Your task to perform on an android device: remove spam from my inbox in the gmail app Image 0: 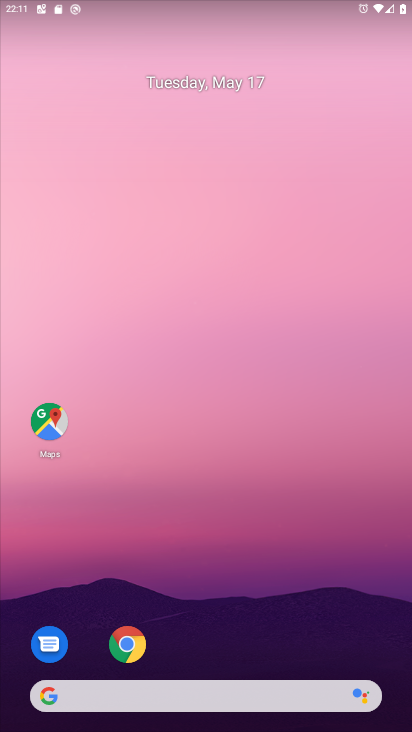
Step 0: click (52, 415)
Your task to perform on an android device: remove spam from my inbox in the gmail app Image 1: 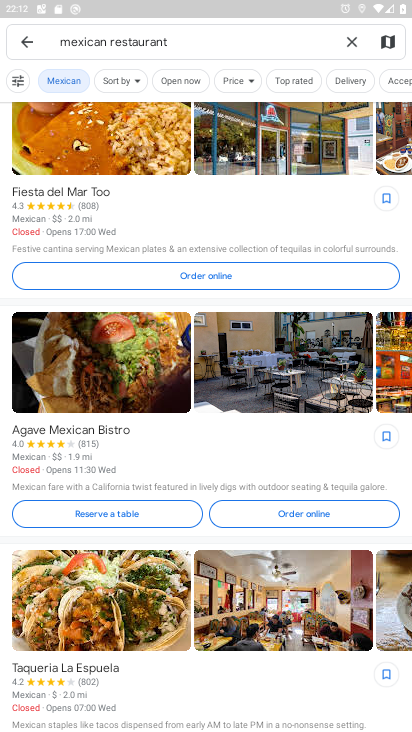
Step 1: press home button
Your task to perform on an android device: remove spam from my inbox in the gmail app Image 2: 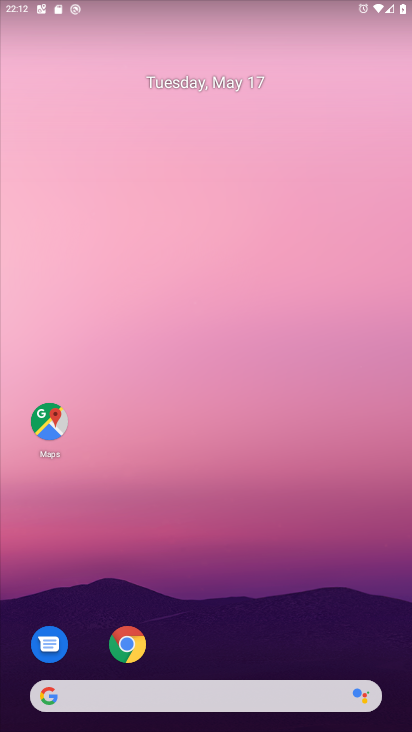
Step 2: drag from (215, 644) to (250, 211)
Your task to perform on an android device: remove spam from my inbox in the gmail app Image 3: 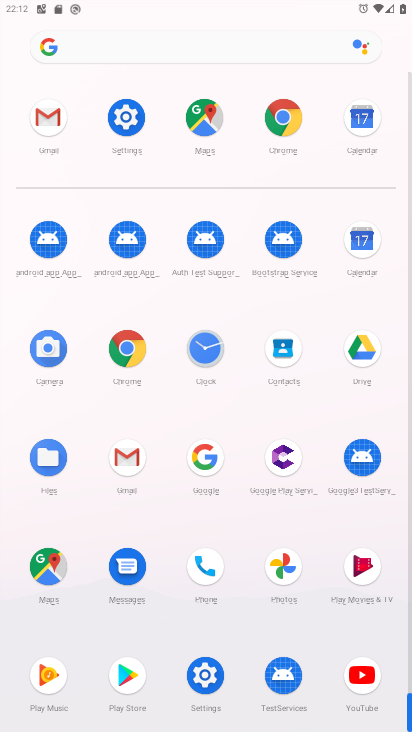
Step 3: click (123, 449)
Your task to perform on an android device: remove spam from my inbox in the gmail app Image 4: 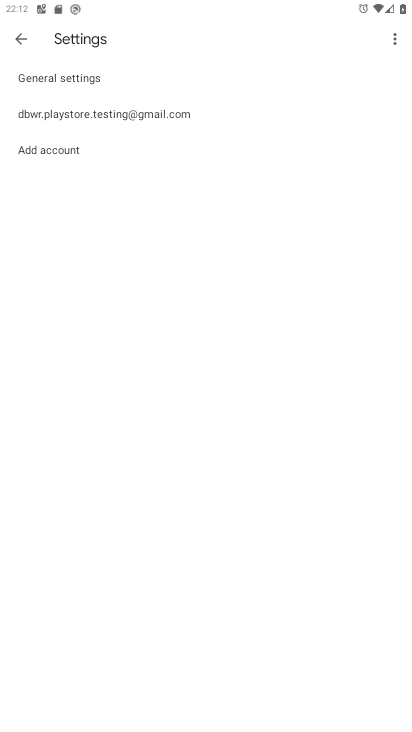
Step 4: click (16, 40)
Your task to perform on an android device: remove spam from my inbox in the gmail app Image 5: 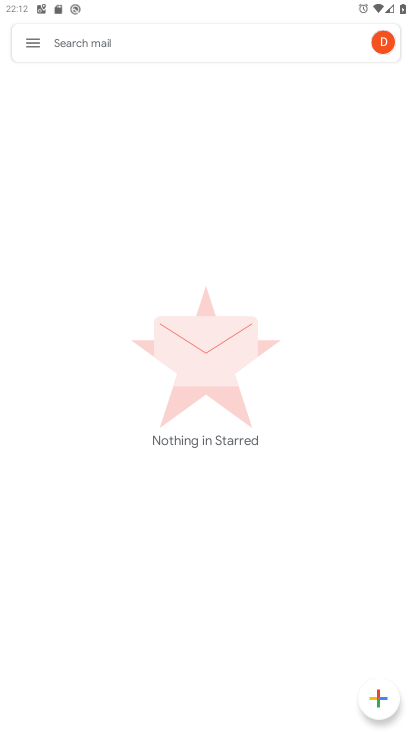
Step 5: click (25, 35)
Your task to perform on an android device: remove spam from my inbox in the gmail app Image 6: 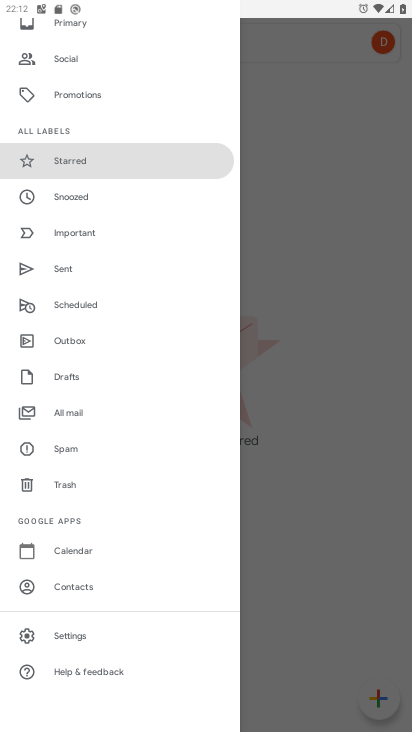
Step 6: click (74, 447)
Your task to perform on an android device: remove spam from my inbox in the gmail app Image 7: 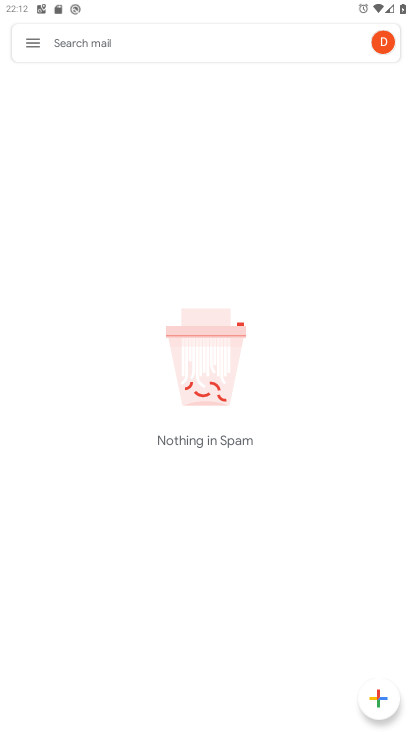
Step 7: task complete